Your task to perform on an android device: Show me recent news Image 0: 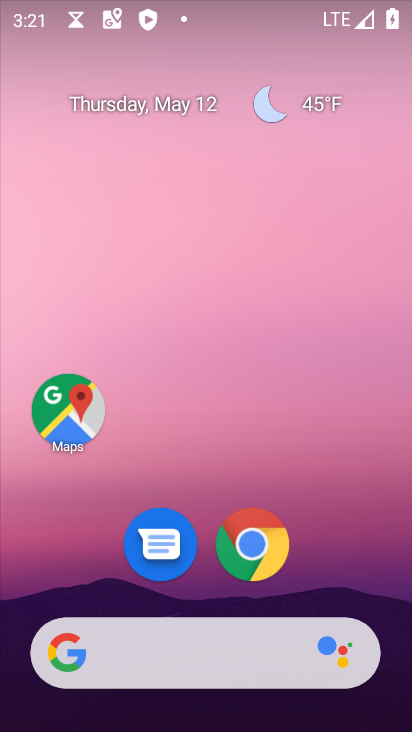
Step 0: click (241, 657)
Your task to perform on an android device: Show me recent news Image 1: 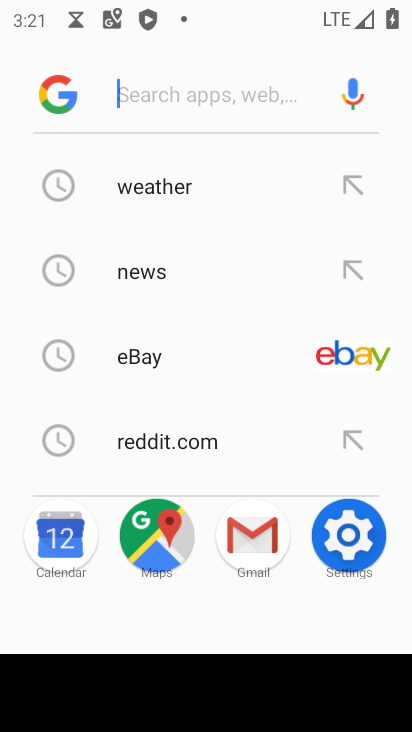
Step 1: type "recent news"
Your task to perform on an android device: Show me recent news Image 2: 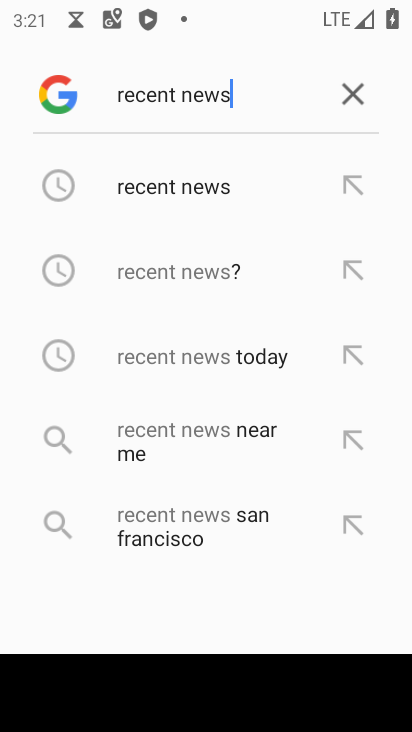
Step 2: click (146, 190)
Your task to perform on an android device: Show me recent news Image 3: 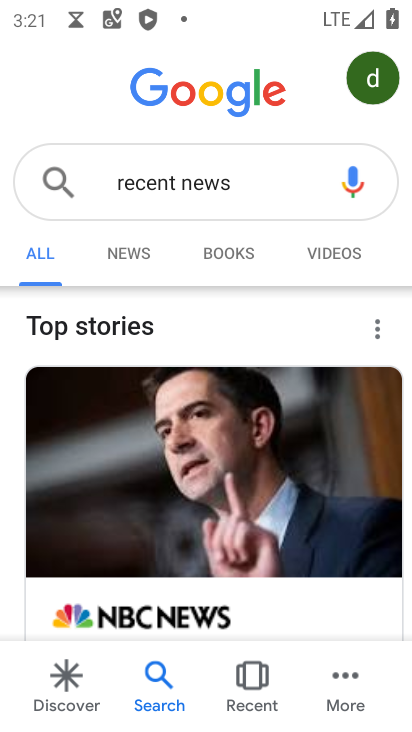
Step 3: click (117, 256)
Your task to perform on an android device: Show me recent news Image 4: 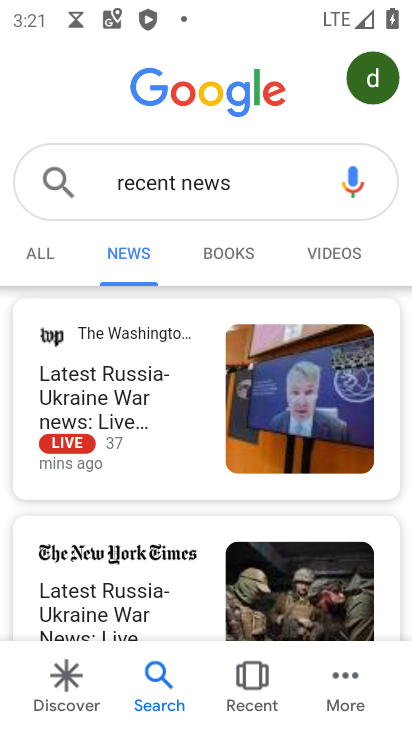
Step 4: task complete